Your task to perform on an android device: empty trash in the gmail app Image 0: 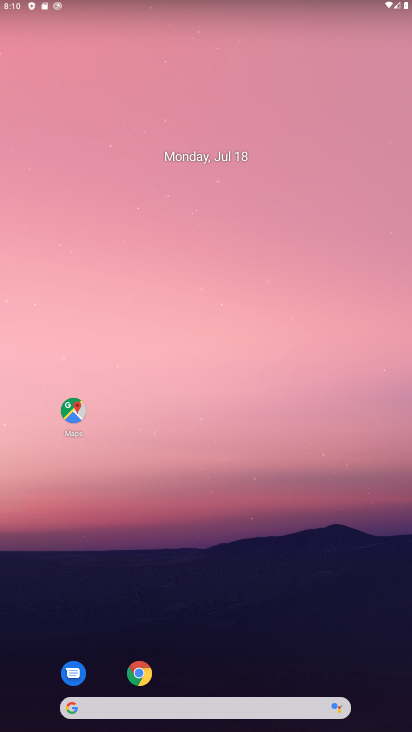
Step 0: drag from (261, 639) to (260, 163)
Your task to perform on an android device: empty trash in the gmail app Image 1: 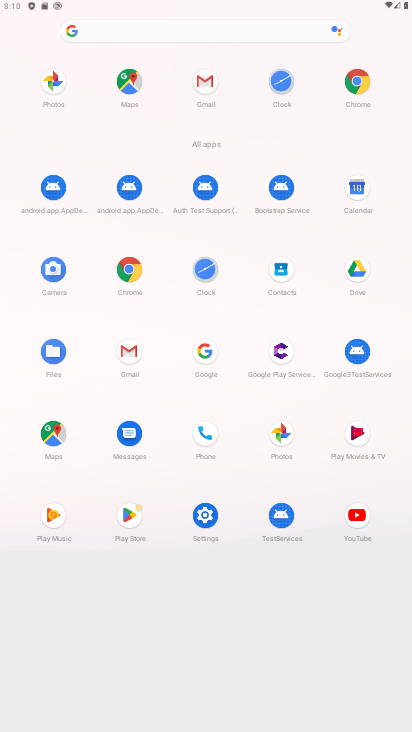
Step 1: click (202, 80)
Your task to perform on an android device: empty trash in the gmail app Image 2: 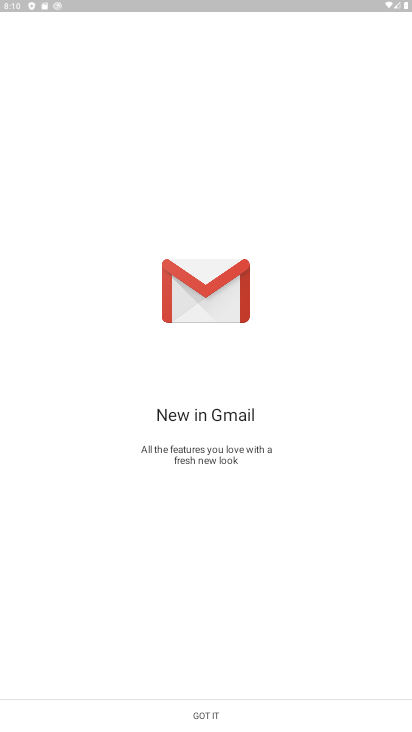
Step 2: click (307, 716)
Your task to perform on an android device: empty trash in the gmail app Image 3: 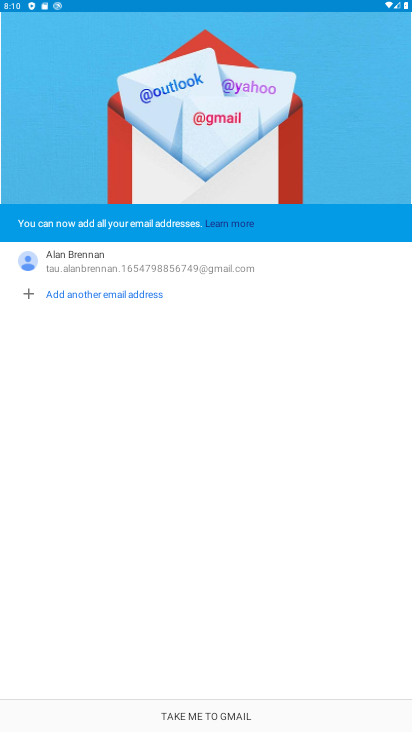
Step 3: click (307, 716)
Your task to perform on an android device: empty trash in the gmail app Image 4: 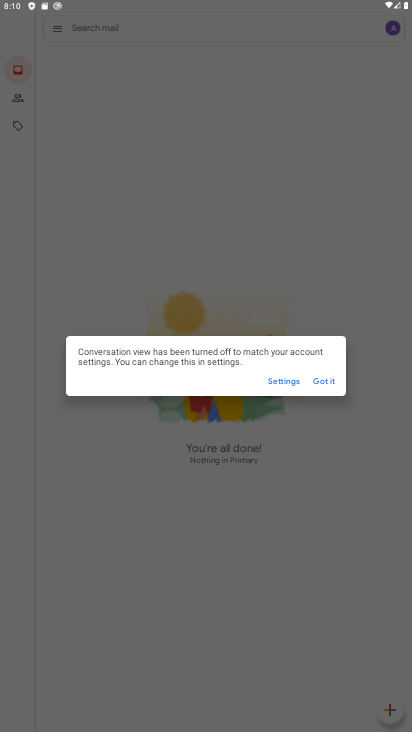
Step 4: click (323, 380)
Your task to perform on an android device: empty trash in the gmail app Image 5: 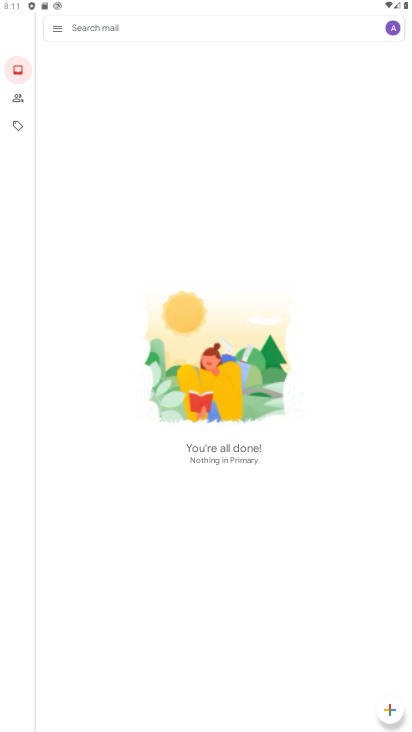
Step 5: click (60, 26)
Your task to perform on an android device: empty trash in the gmail app Image 6: 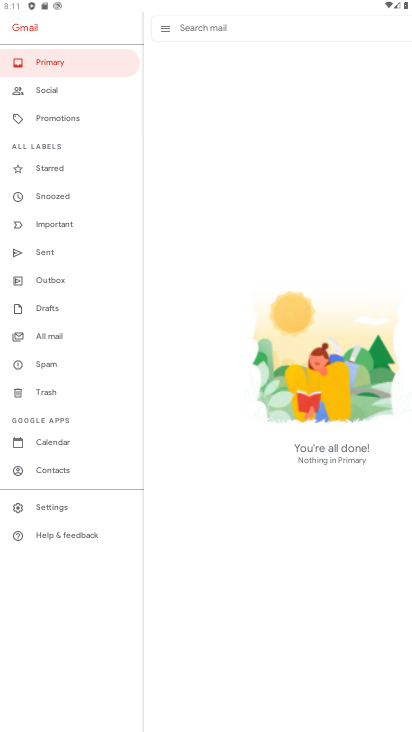
Step 6: click (55, 392)
Your task to perform on an android device: empty trash in the gmail app Image 7: 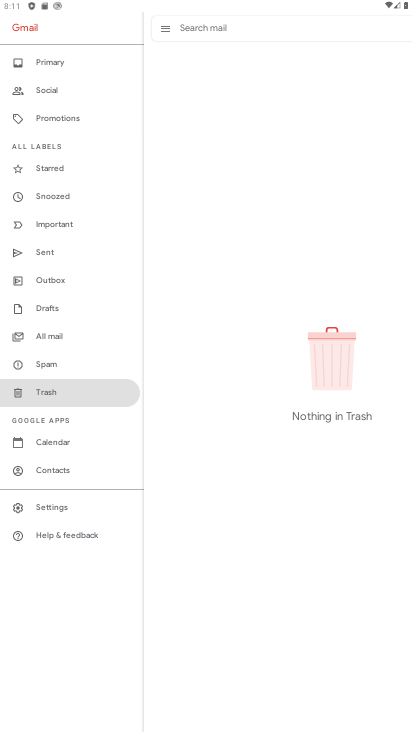
Step 7: task complete